Your task to perform on an android device: install app "Mercado Libre" Image 0: 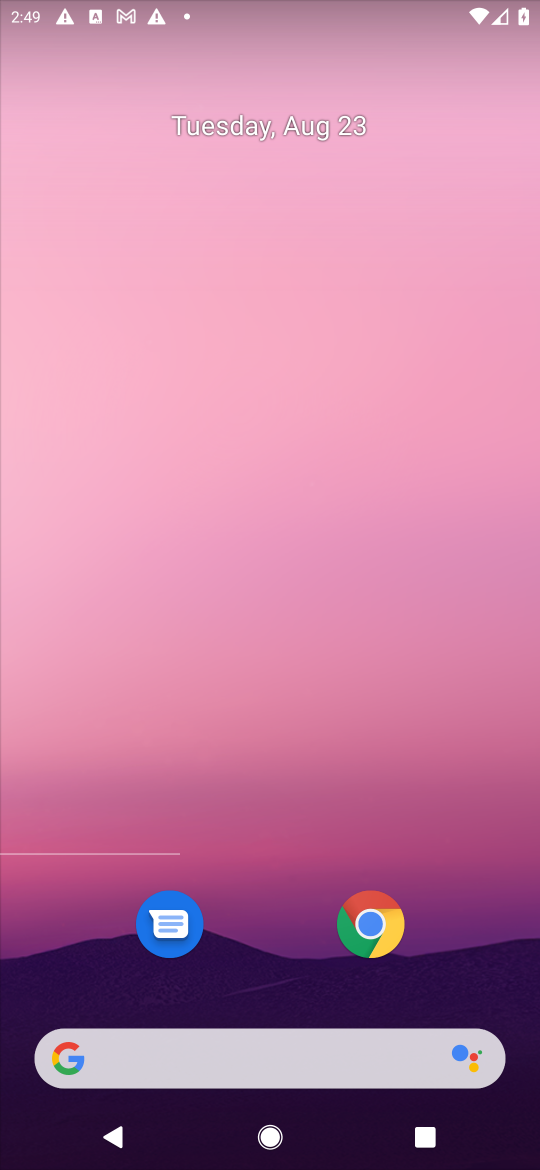
Step 0: press home button
Your task to perform on an android device: install app "Mercado Libre" Image 1: 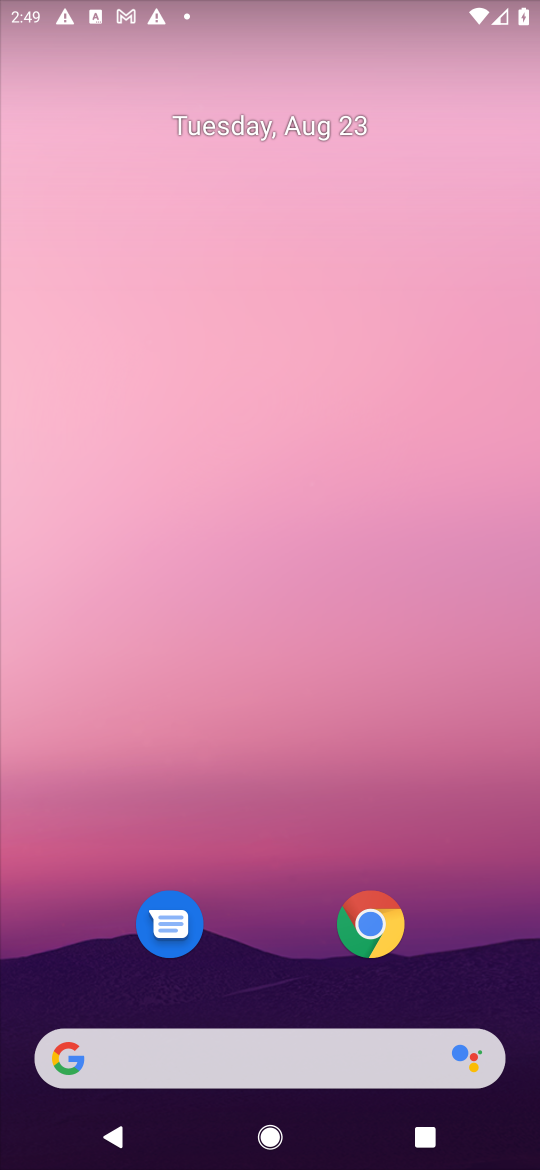
Step 1: drag from (468, 794) to (439, 124)
Your task to perform on an android device: install app "Mercado Libre" Image 2: 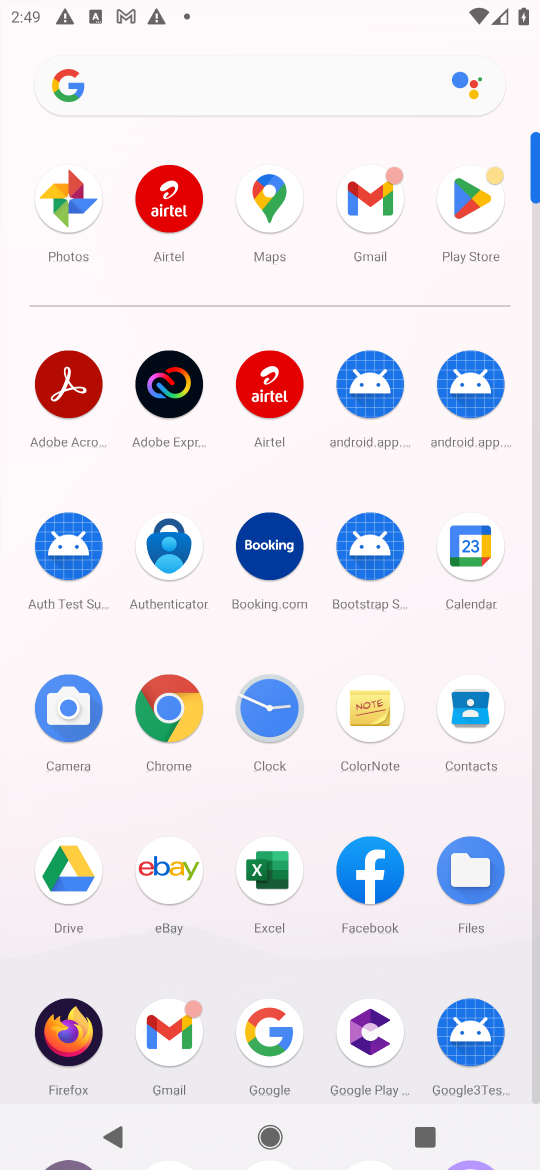
Step 2: click (452, 190)
Your task to perform on an android device: install app "Mercado Libre" Image 3: 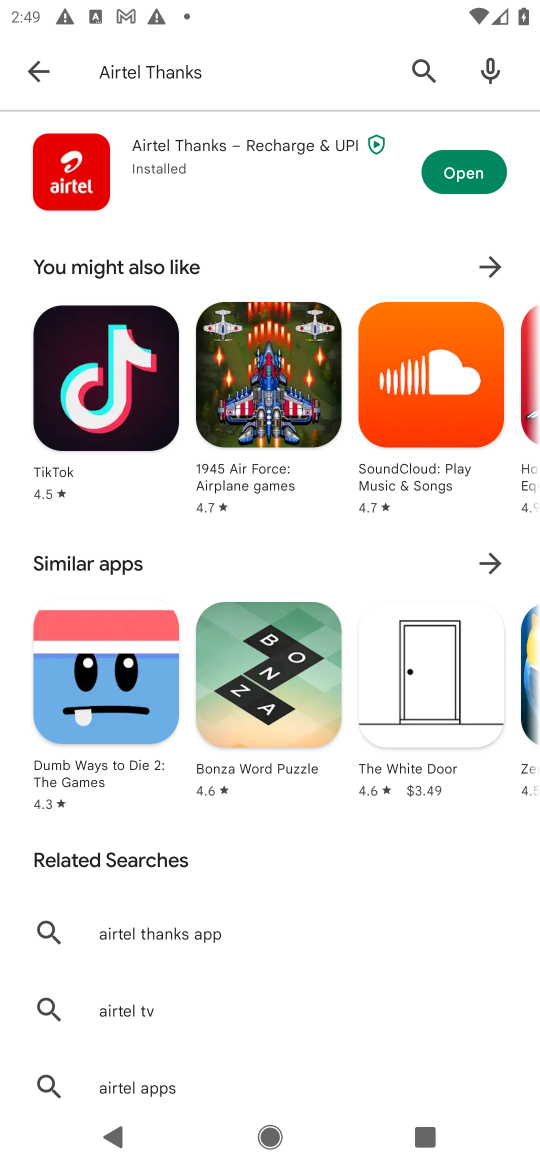
Step 3: press back button
Your task to perform on an android device: install app "Mercado Libre" Image 4: 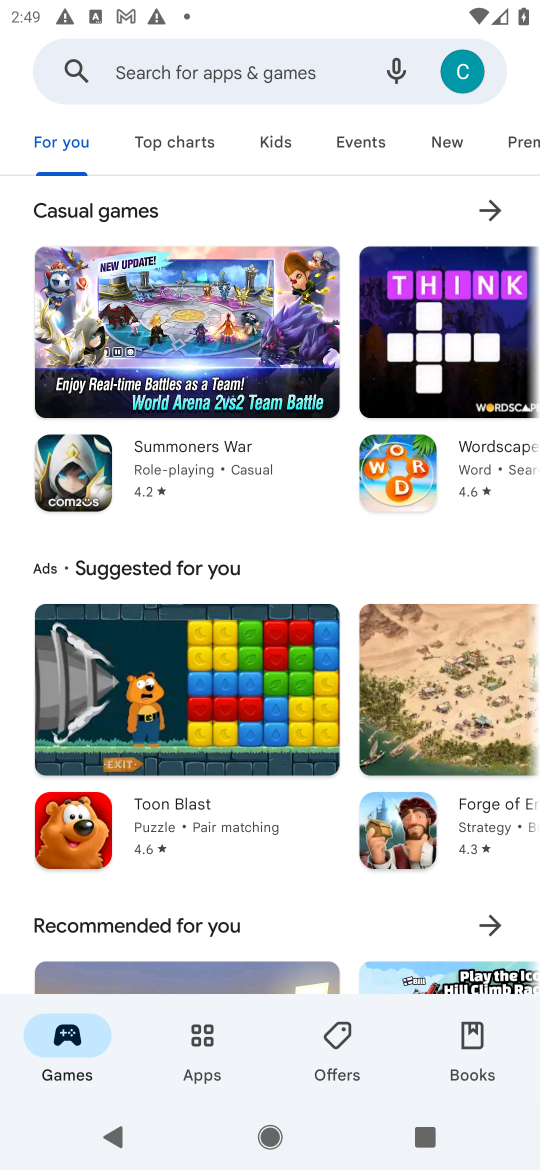
Step 4: click (222, 78)
Your task to perform on an android device: install app "Mercado Libre" Image 5: 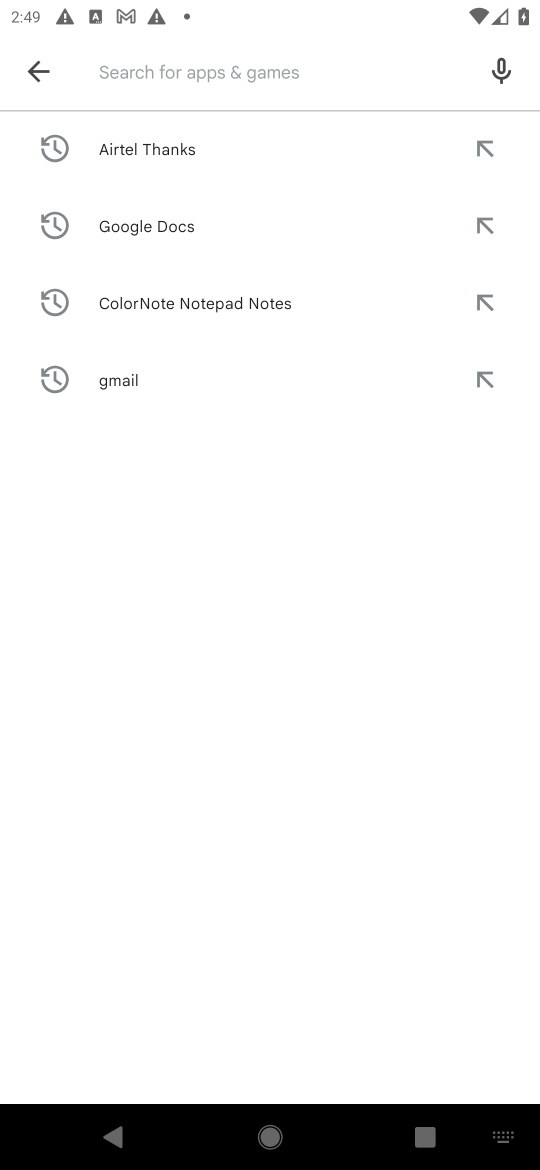
Step 5: type "Mercado Libre"
Your task to perform on an android device: install app "Mercado Libre" Image 6: 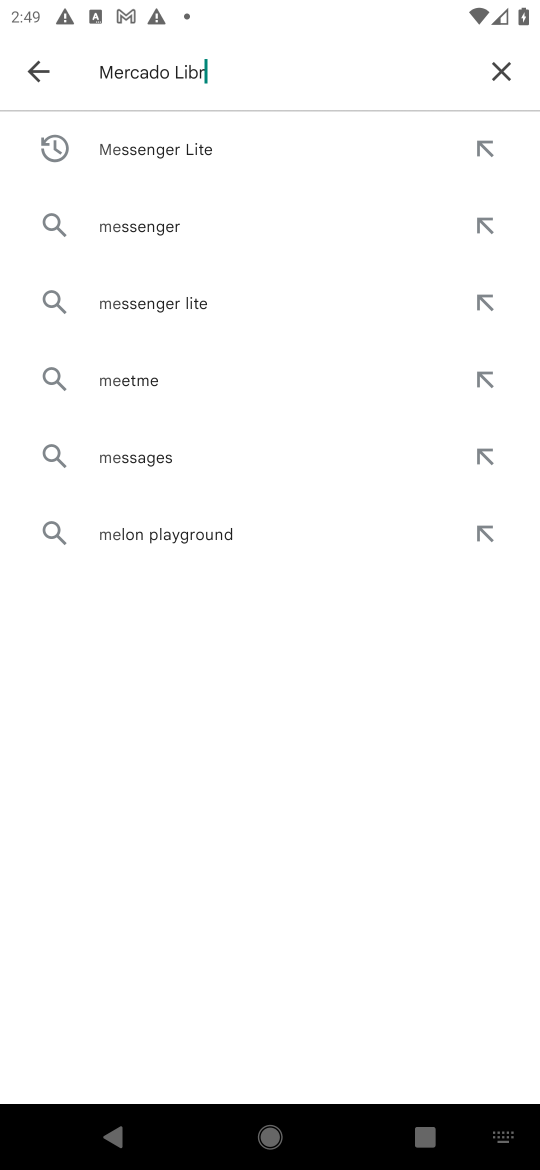
Step 6: press enter
Your task to perform on an android device: install app "Mercado Libre" Image 7: 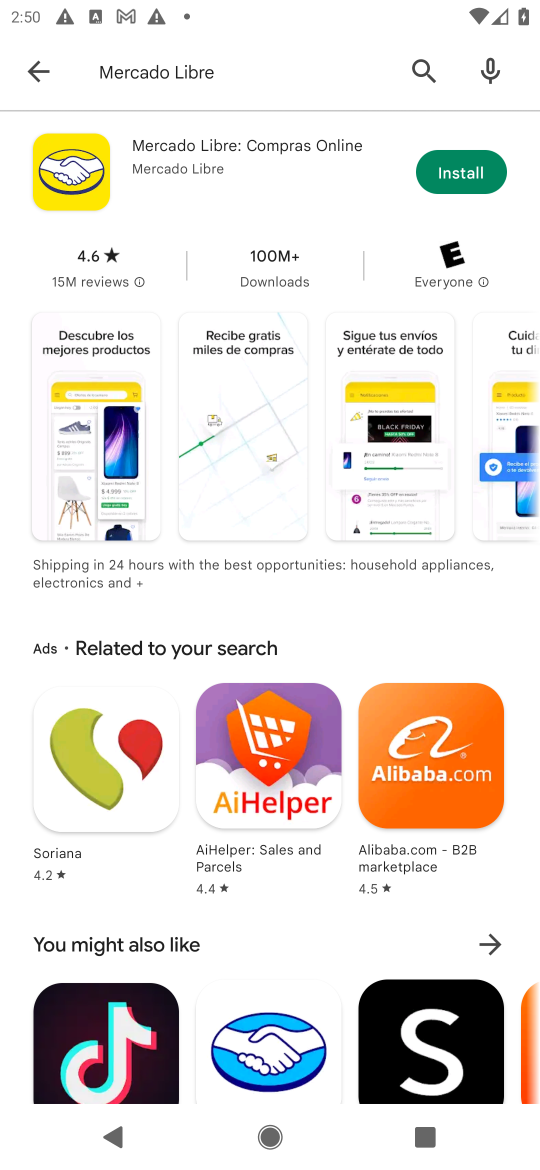
Step 7: click (461, 172)
Your task to perform on an android device: install app "Mercado Libre" Image 8: 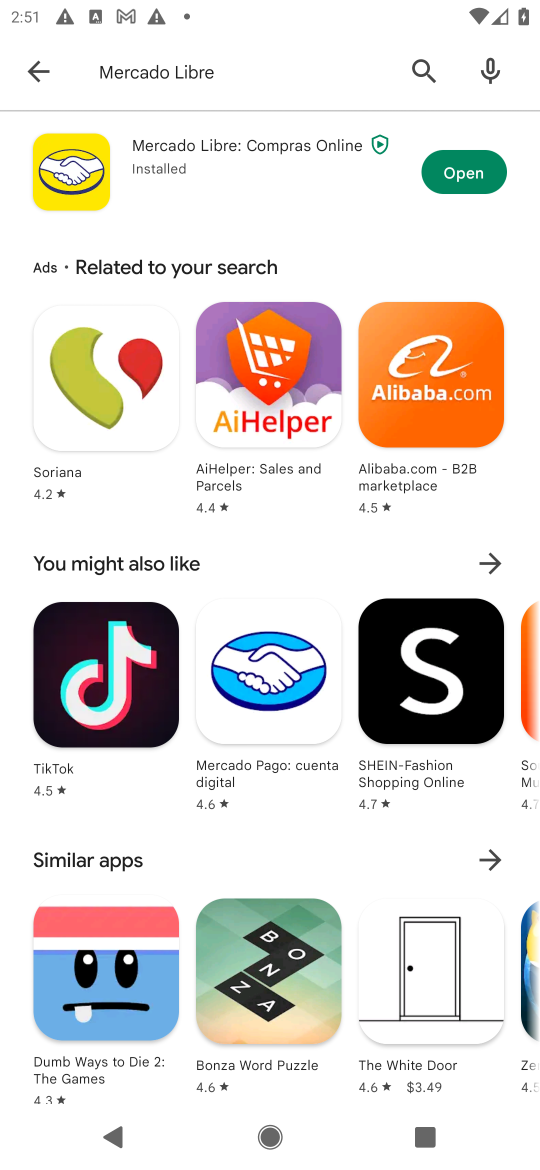
Step 8: task complete